Your task to perform on an android device: Open display settings Image 0: 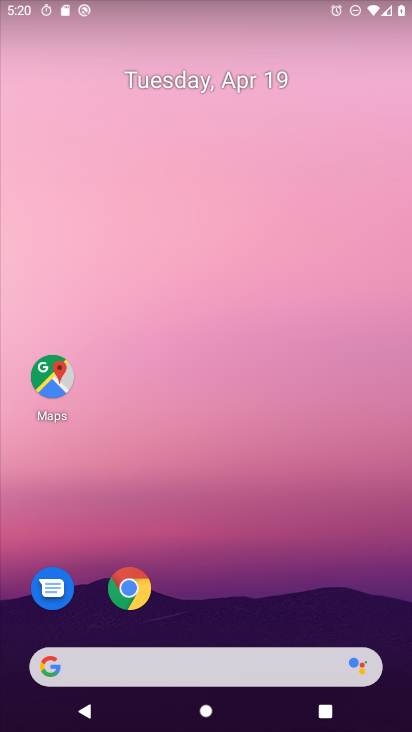
Step 0: drag from (233, 581) to (235, 89)
Your task to perform on an android device: Open display settings Image 1: 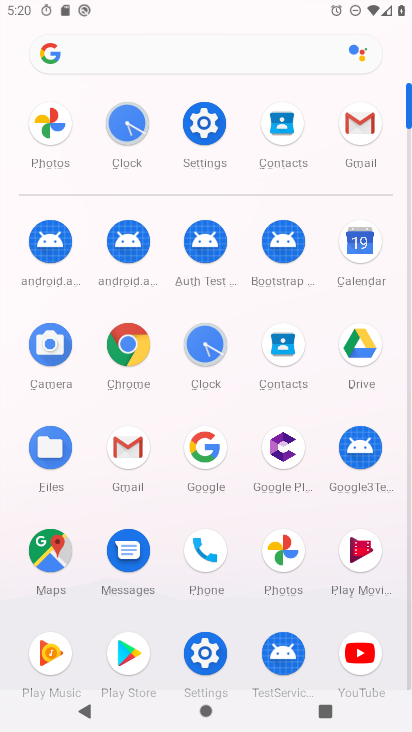
Step 1: click (202, 138)
Your task to perform on an android device: Open display settings Image 2: 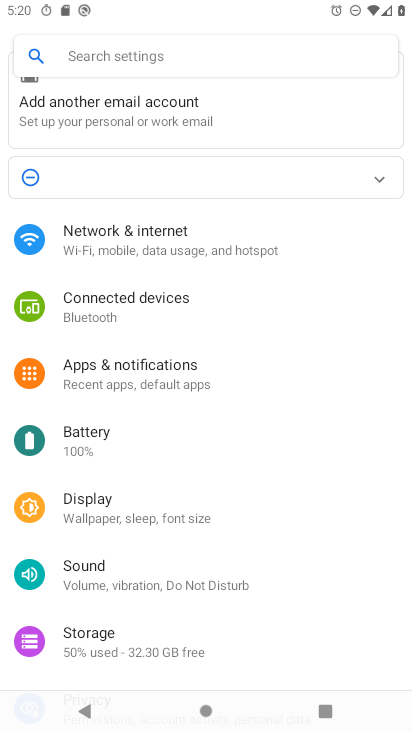
Step 2: click (140, 502)
Your task to perform on an android device: Open display settings Image 3: 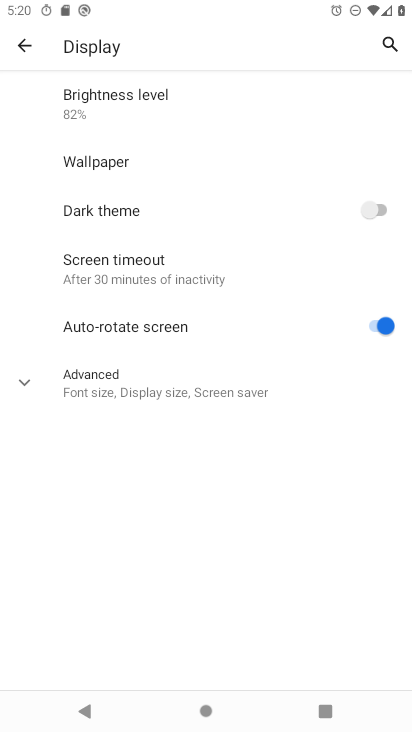
Step 3: task complete